Your task to perform on an android device: Open calendar and show me the fourth week of next month Image 0: 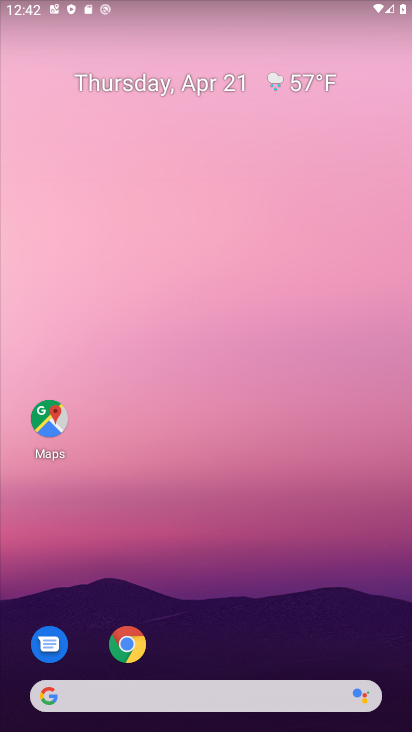
Step 0: drag from (198, 669) to (204, 364)
Your task to perform on an android device: Open calendar and show me the fourth week of next month Image 1: 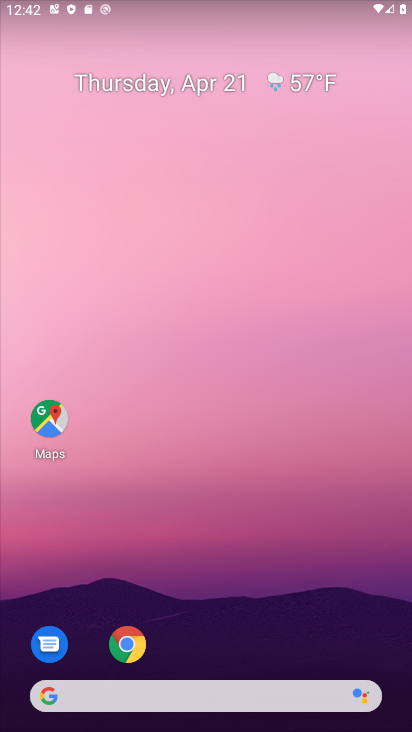
Step 1: drag from (205, 642) to (235, 56)
Your task to perform on an android device: Open calendar and show me the fourth week of next month Image 2: 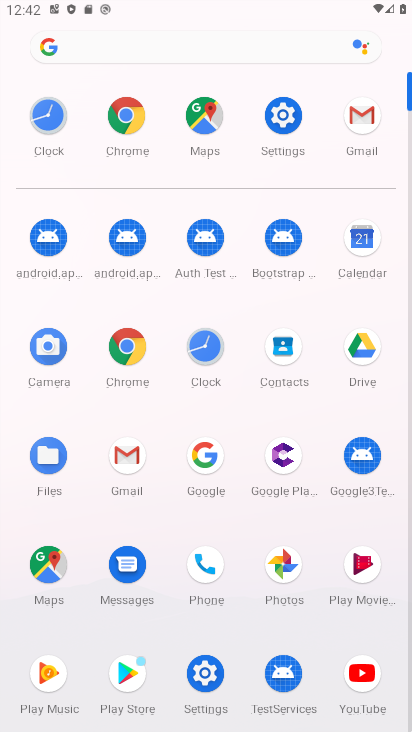
Step 2: click (362, 245)
Your task to perform on an android device: Open calendar and show me the fourth week of next month Image 3: 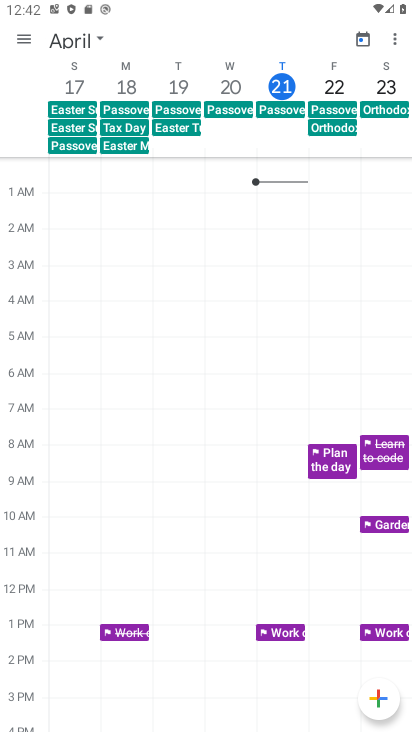
Step 3: task complete